Your task to perform on an android device: What's the weather today? Image 0: 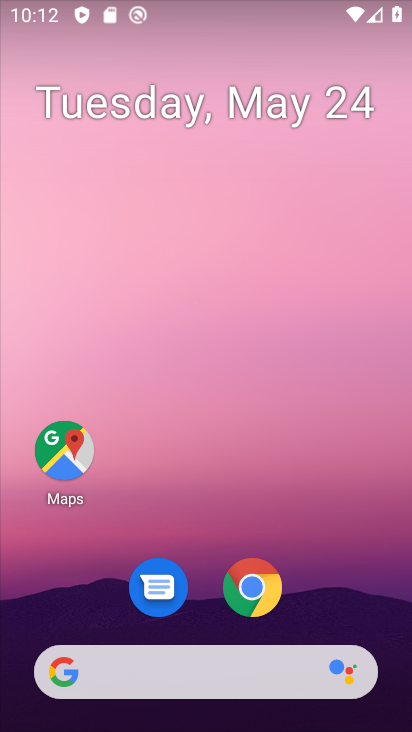
Step 0: press home button
Your task to perform on an android device: What's the weather today? Image 1: 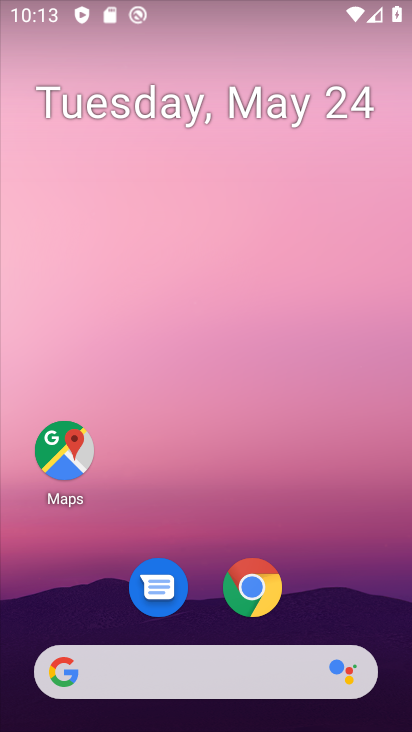
Step 1: click (236, 592)
Your task to perform on an android device: What's the weather today? Image 2: 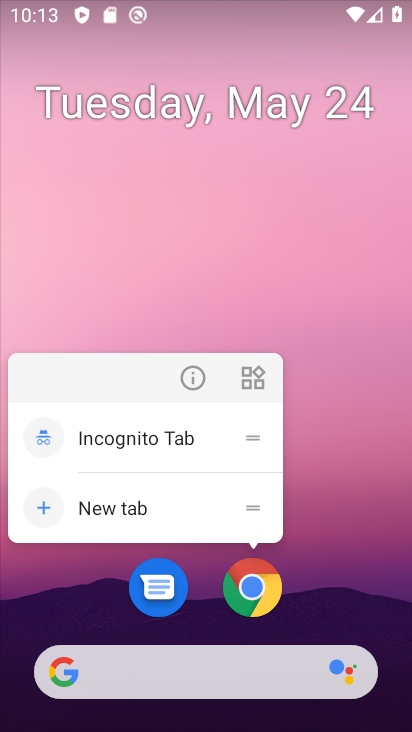
Step 2: click (239, 592)
Your task to perform on an android device: What's the weather today? Image 3: 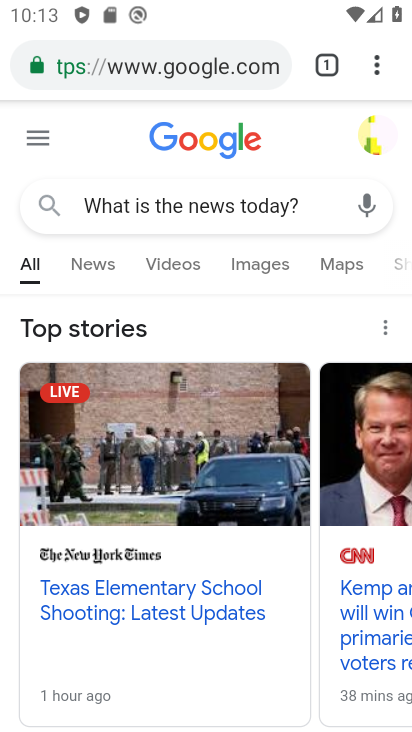
Step 3: click (184, 53)
Your task to perform on an android device: What's the weather today? Image 4: 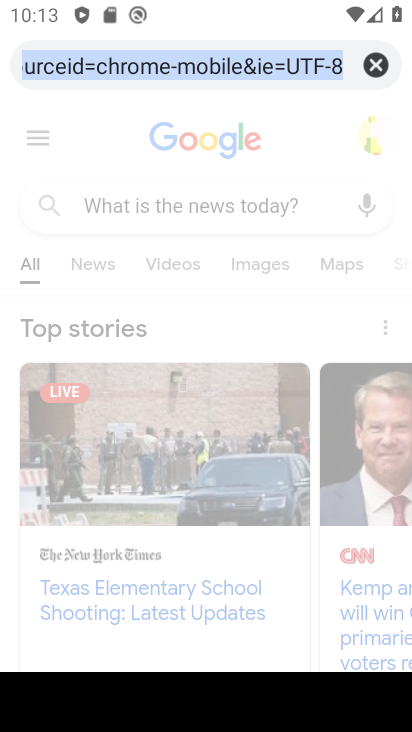
Step 4: click (369, 51)
Your task to perform on an android device: What's the weather today? Image 5: 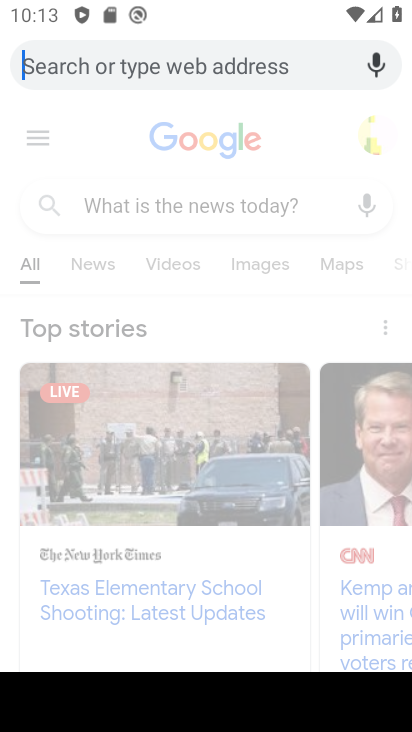
Step 5: type "What's the weather today?"
Your task to perform on an android device: What's the weather today? Image 6: 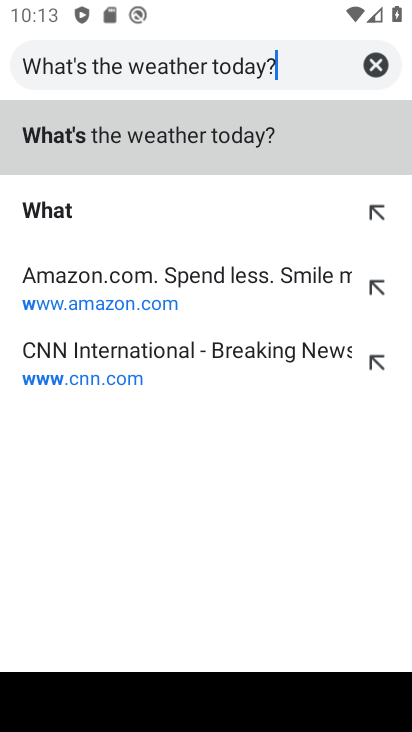
Step 6: type ""
Your task to perform on an android device: What's the weather today? Image 7: 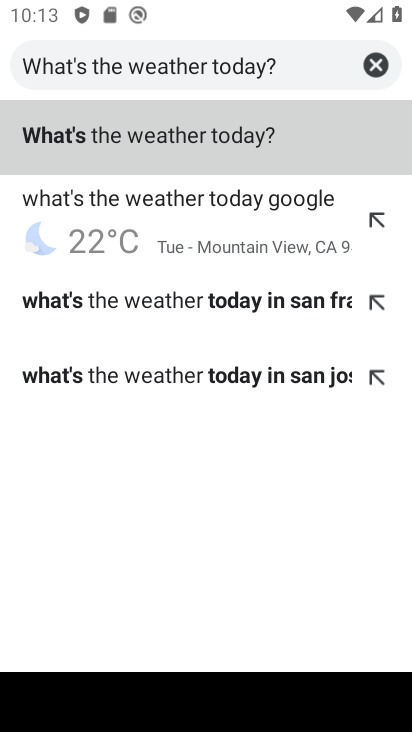
Step 7: click (122, 135)
Your task to perform on an android device: What's the weather today? Image 8: 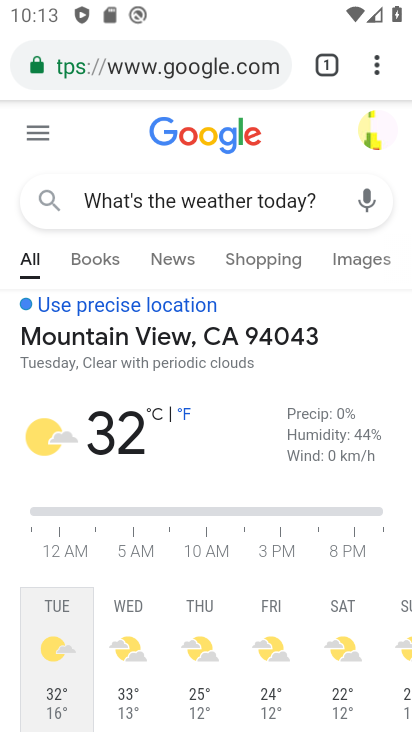
Step 8: task complete